Your task to perform on an android device: Open the calendar and show me this week's events Image 0: 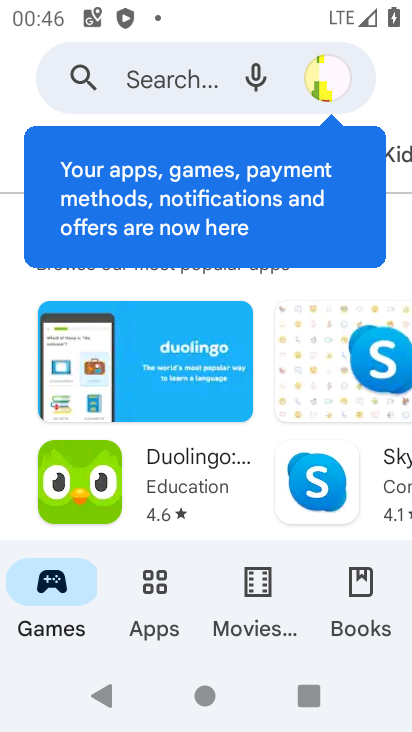
Step 0: press home button
Your task to perform on an android device: Open the calendar and show me this week's events Image 1: 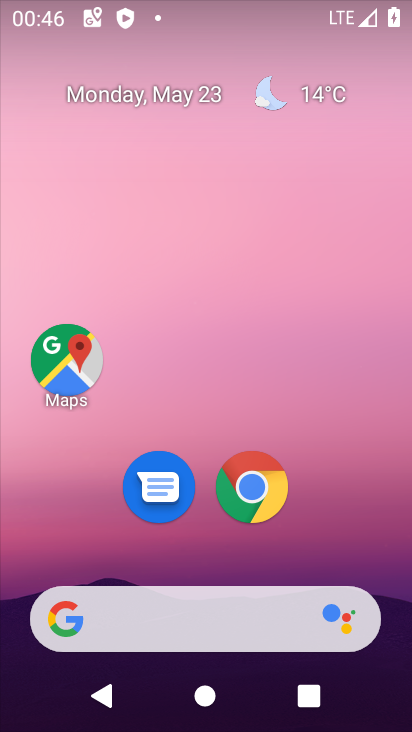
Step 1: drag from (353, 554) to (368, 89)
Your task to perform on an android device: Open the calendar and show me this week's events Image 2: 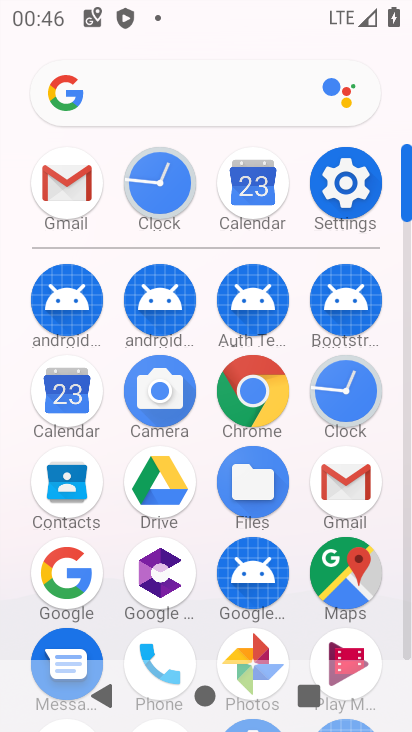
Step 2: click (407, 638)
Your task to perform on an android device: Open the calendar and show me this week's events Image 3: 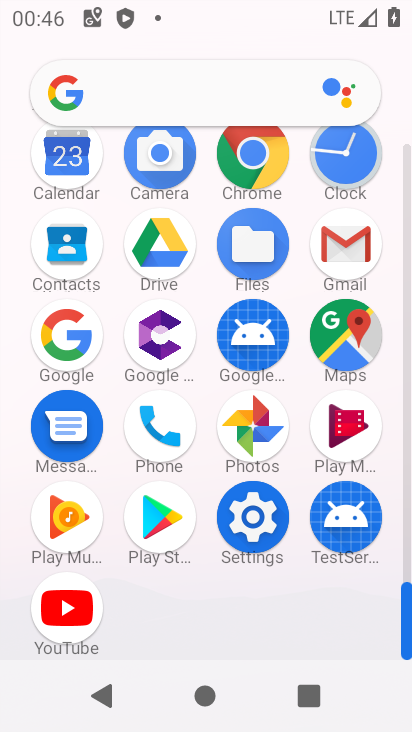
Step 3: click (65, 151)
Your task to perform on an android device: Open the calendar and show me this week's events Image 4: 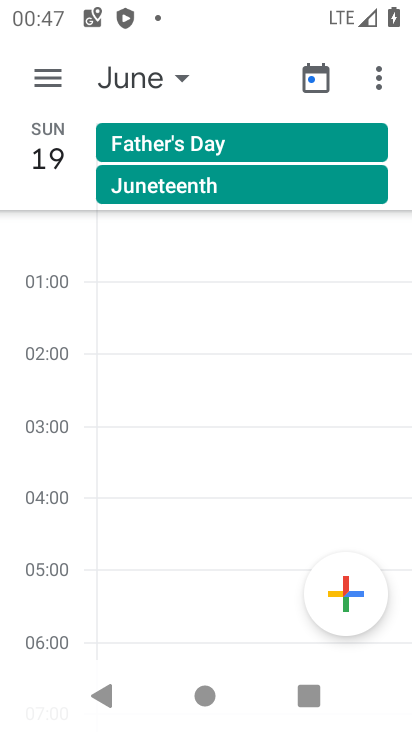
Step 4: click (48, 79)
Your task to perform on an android device: Open the calendar and show me this week's events Image 5: 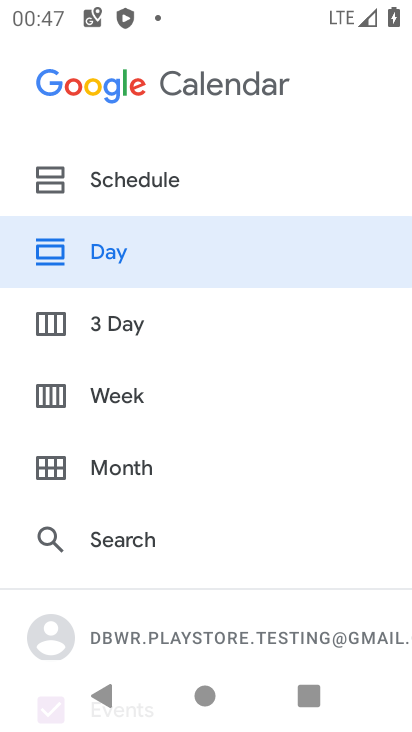
Step 5: click (123, 390)
Your task to perform on an android device: Open the calendar and show me this week's events Image 6: 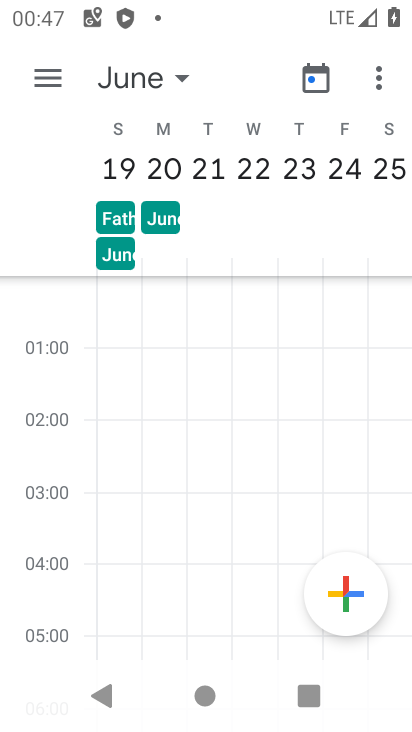
Step 6: click (181, 76)
Your task to perform on an android device: Open the calendar and show me this week's events Image 7: 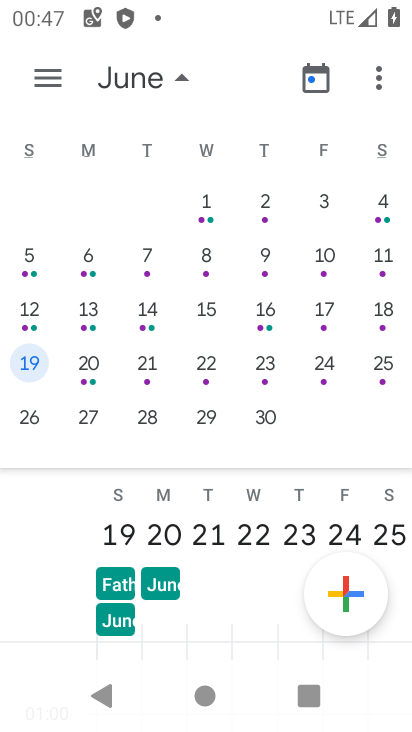
Step 7: click (49, 69)
Your task to perform on an android device: Open the calendar and show me this week's events Image 8: 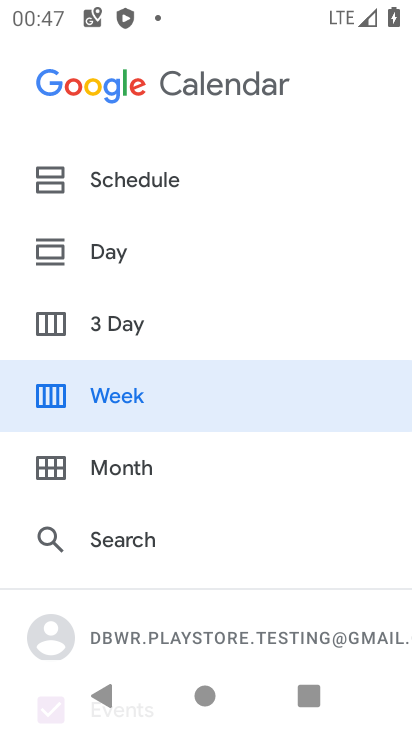
Step 8: click (162, 179)
Your task to perform on an android device: Open the calendar and show me this week's events Image 9: 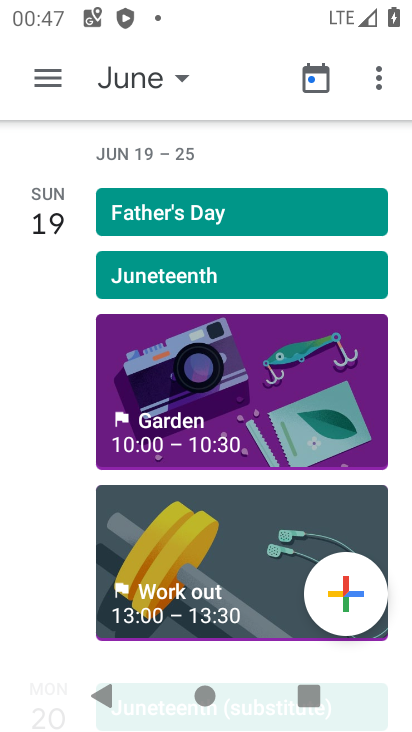
Step 9: drag from (187, 512) to (182, 103)
Your task to perform on an android device: Open the calendar and show me this week's events Image 10: 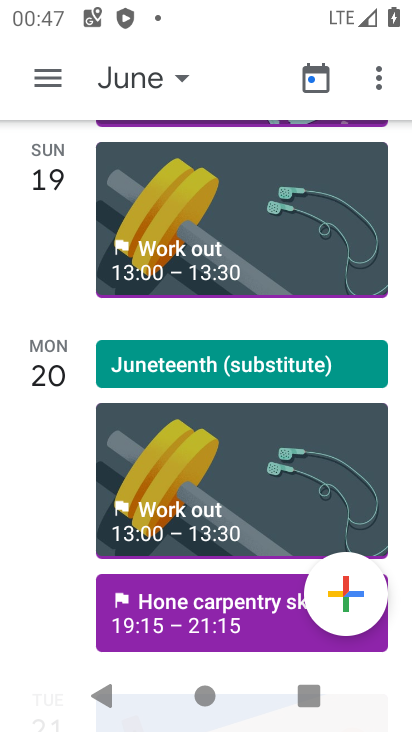
Step 10: click (178, 80)
Your task to perform on an android device: Open the calendar and show me this week's events Image 11: 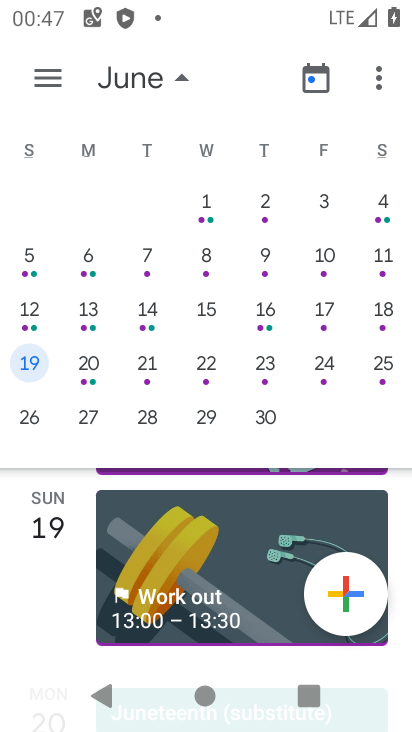
Step 11: drag from (44, 265) to (325, 281)
Your task to perform on an android device: Open the calendar and show me this week's events Image 12: 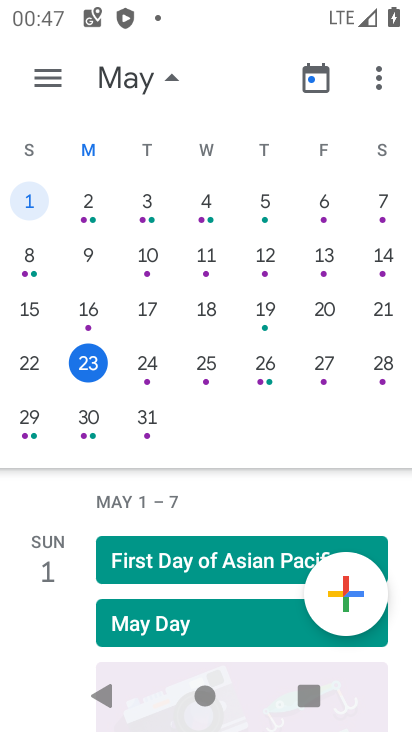
Step 12: click (86, 356)
Your task to perform on an android device: Open the calendar and show me this week's events Image 13: 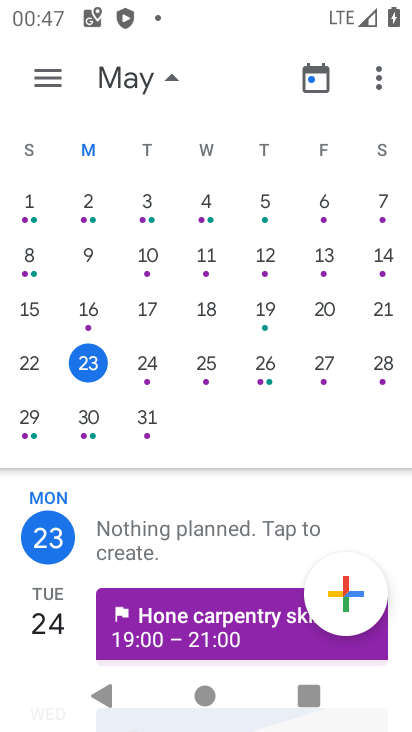
Step 13: task complete